Your task to perform on an android device: Open the calendar and show me this week's events Image 0: 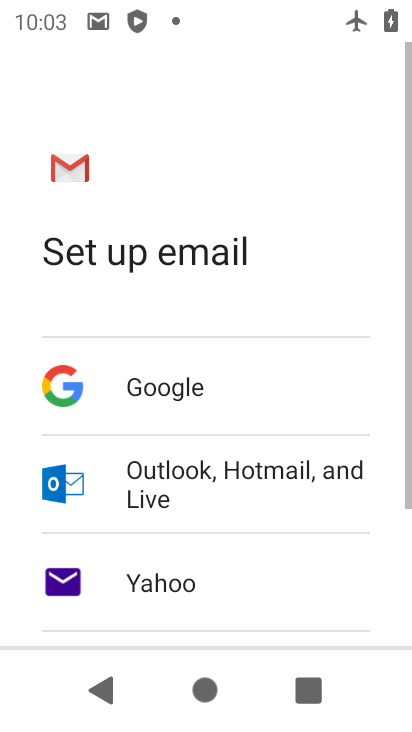
Step 0: press home button
Your task to perform on an android device: Open the calendar and show me this week's events Image 1: 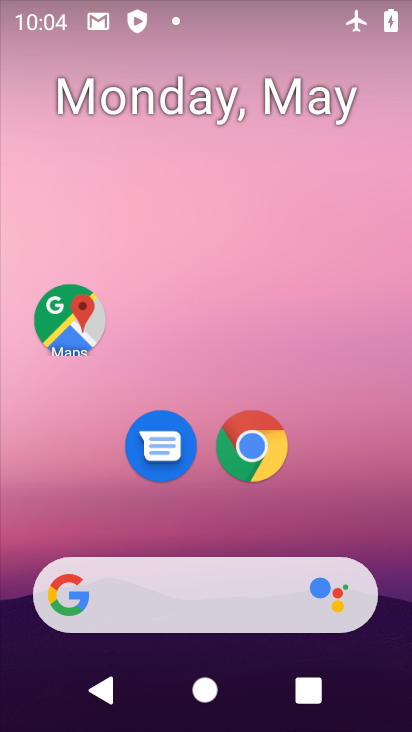
Step 1: drag from (366, 511) to (317, 125)
Your task to perform on an android device: Open the calendar and show me this week's events Image 2: 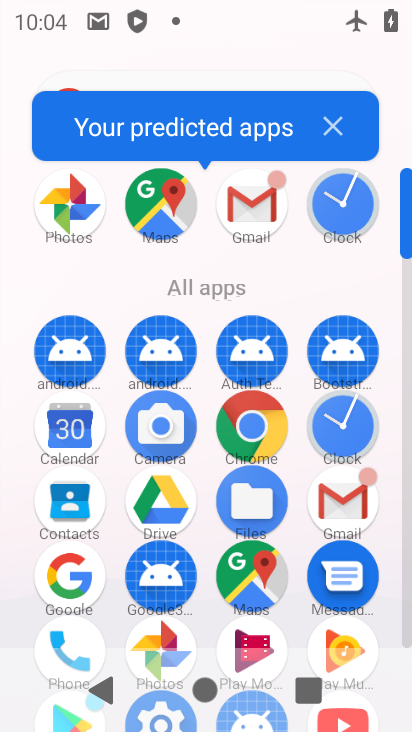
Step 2: click (404, 625)
Your task to perform on an android device: Open the calendar and show me this week's events Image 3: 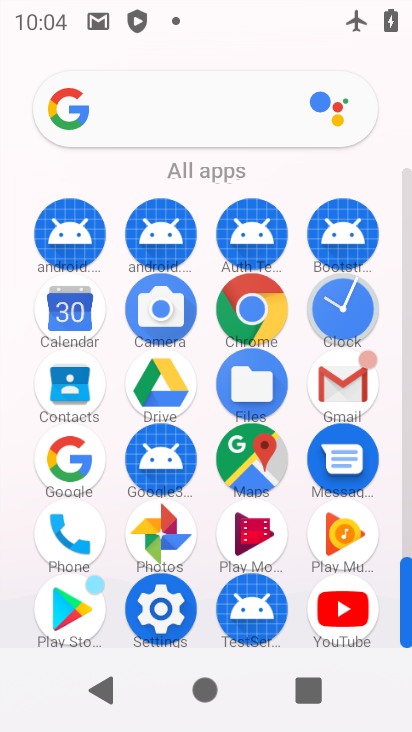
Step 3: click (63, 298)
Your task to perform on an android device: Open the calendar and show me this week's events Image 4: 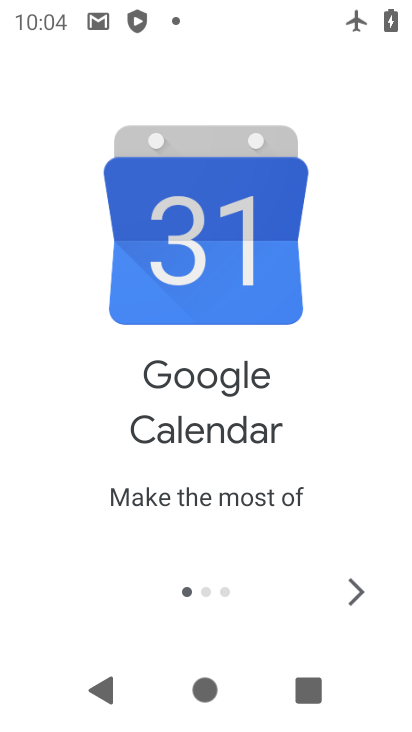
Step 4: click (379, 607)
Your task to perform on an android device: Open the calendar and show me this week's events Image 5: 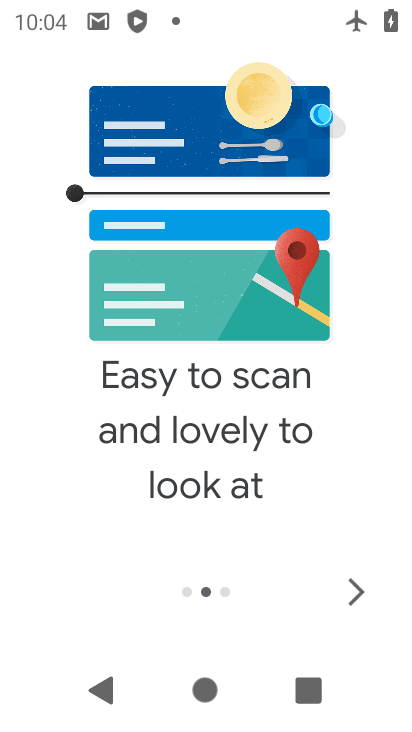
Step 5: click (369, 597)
Your task to perform on an android device: Open the calendar and show me this week's events Image 6: 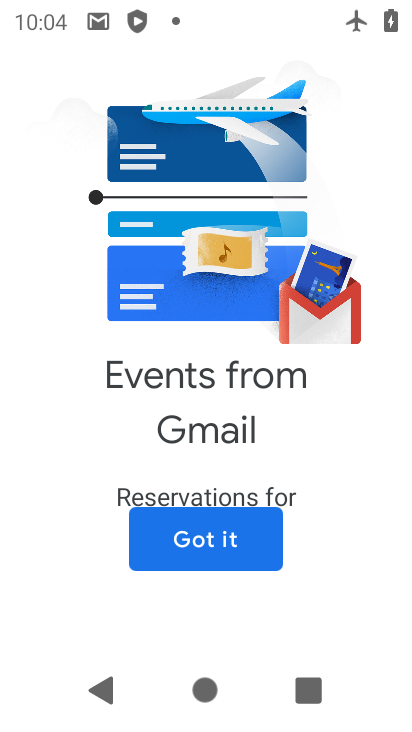
Step 6: click (369, 597)
Your task to perform on an android device: Open the calendar and show me this week's events Image 7: 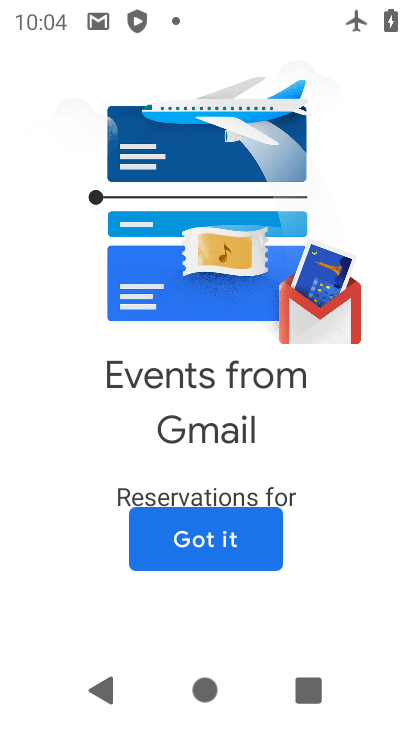
Step 7: click (219, 559)
Your task to perform on an android device: Open the calendar and show me this week's events Image 8: 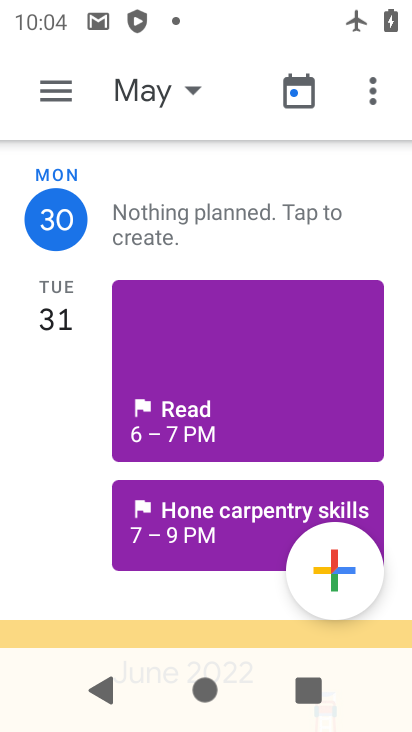
Step 8: click (186, 93)
Your task to perform on an android device: Open the calendar and show me this week's events Image 9: 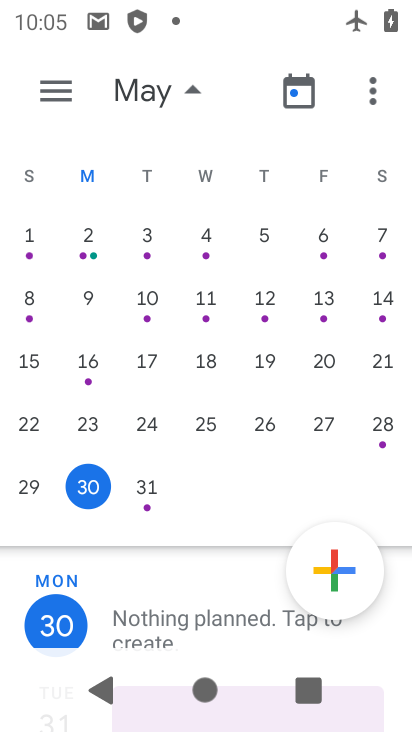
Step 9: drag from (343, 302) to (5, 220)
Your task to perform on an android device: Open the calendar and show me this week's events Image 10: 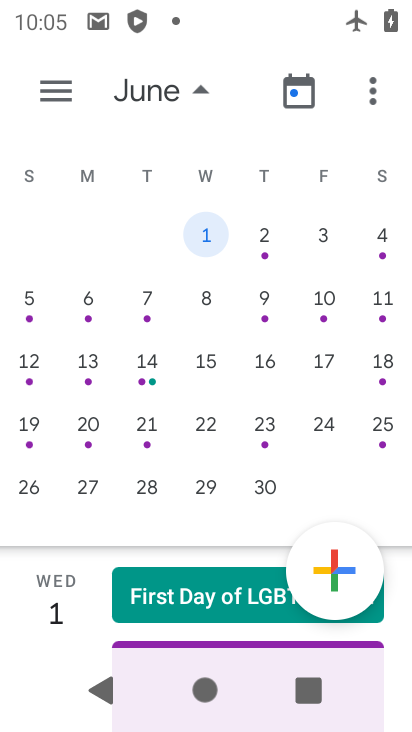
Step 10: click (205, 234)
Your task to perform on an android device: Open the calendar and show me this week's events Image 11: 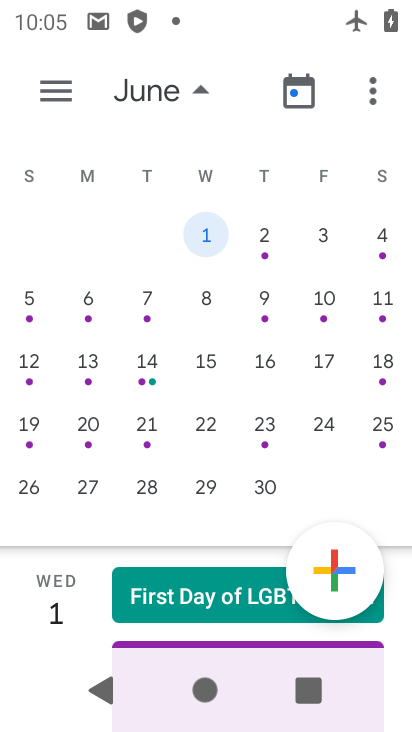
Step 11: task complete